Your task to perform on an android device: Go to internet settings Image 0: 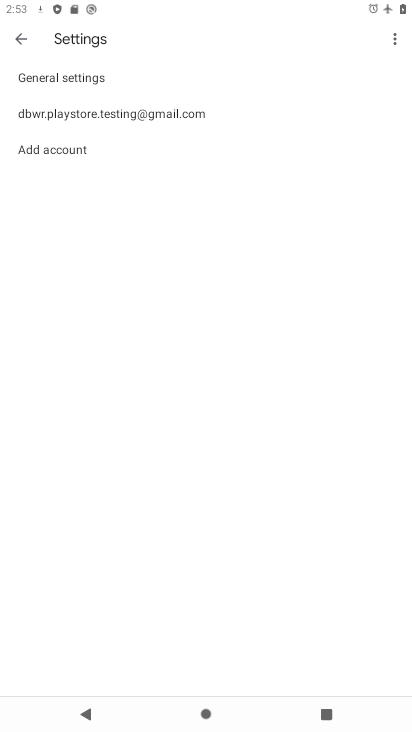
Step 0: press home button
Your task to perform on an android device: Go to internet settings Image 1: 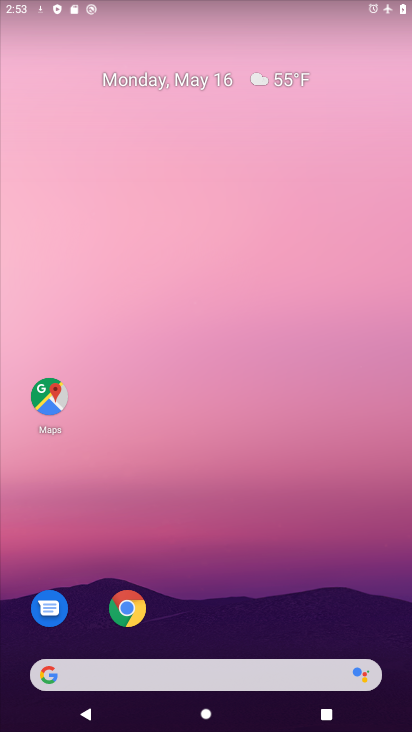
Step 1: drag from (215, 621) to (187, 159)
Your task to perform on an android device: Go to internet settings Image 2: 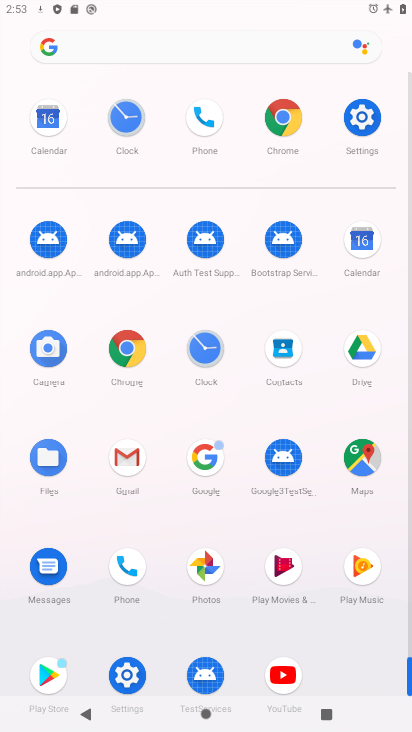
Step 2: click (356, 129)
Your task to perform on an android device: Go to internet settings Image 3: 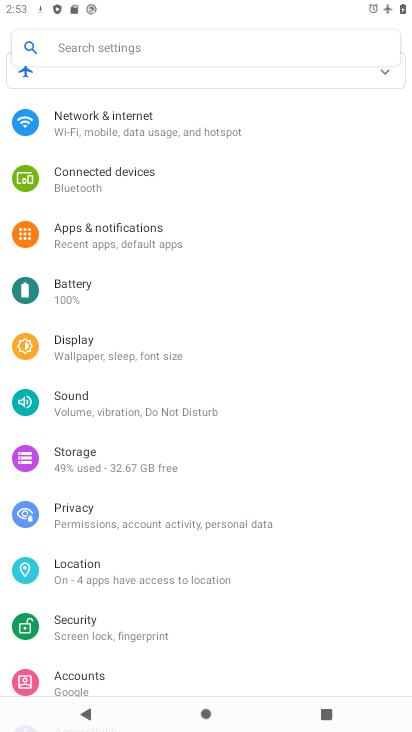
Step 3: click (194, 133)
Your task to perform on an android device: Go to internet settings Image 4: 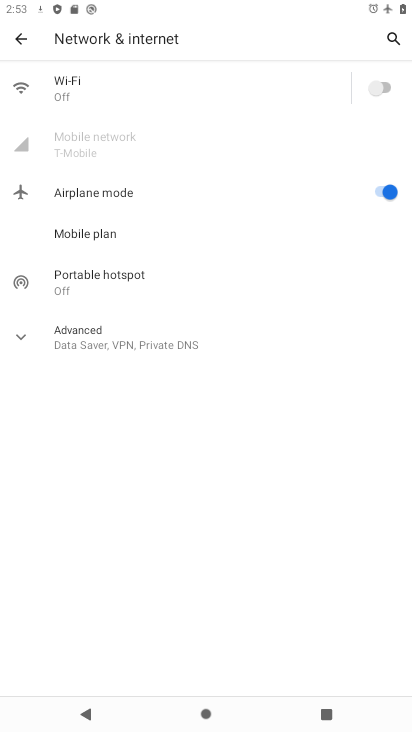
Step 4: click (123, 146)
Your task to perform on an android device: Go to internet settings Image 5: 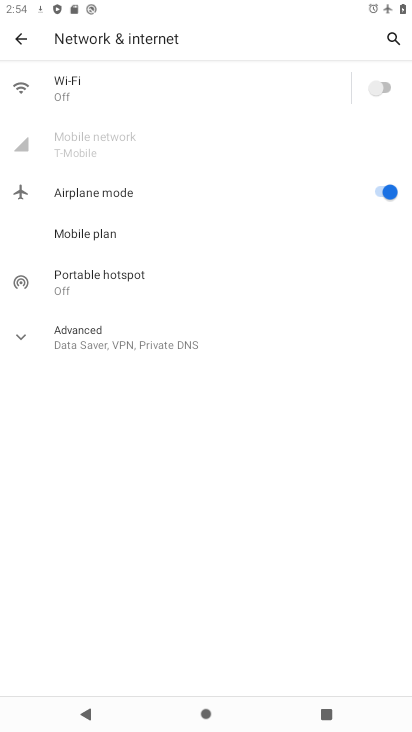
Step 5: click (53, 135)
Your task to perform on an android device: Go to internet settings Image 6: 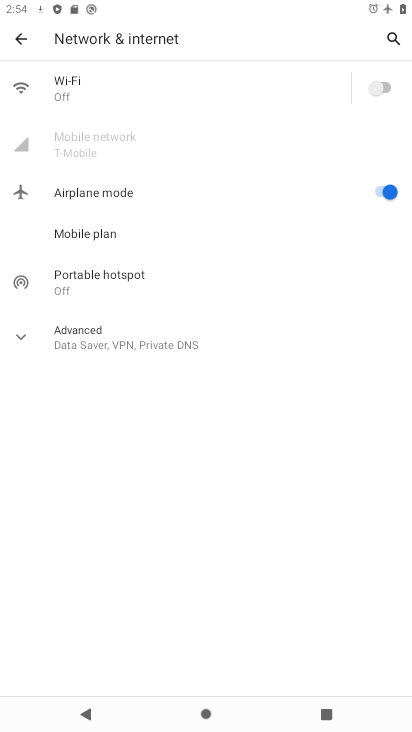
Step 6: click (100, 139)
Your task to perform on an android device: Go to internet settings Image 7: 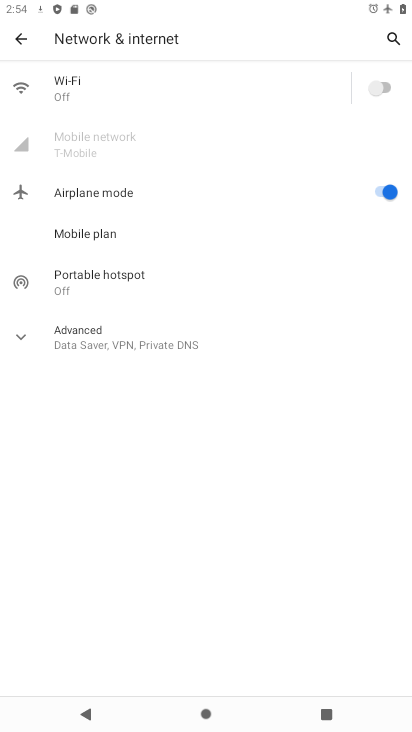
Step 7: task complete